Your task to perform on an android device: Go to Amazon Image 0: 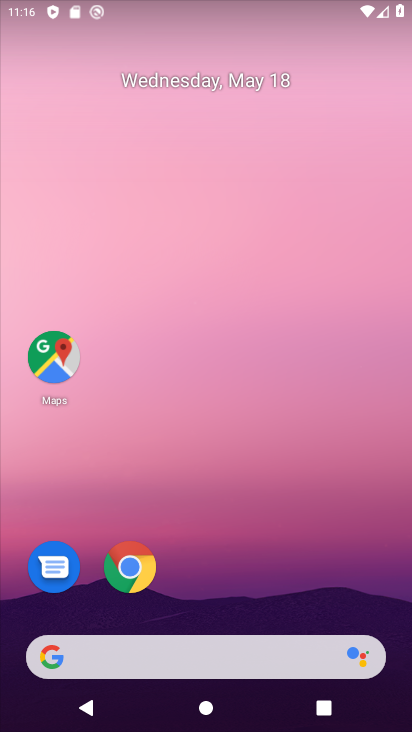
Step 0: click (133, 564)
Your task to perform on an android device: Go to Amazon Image 1: 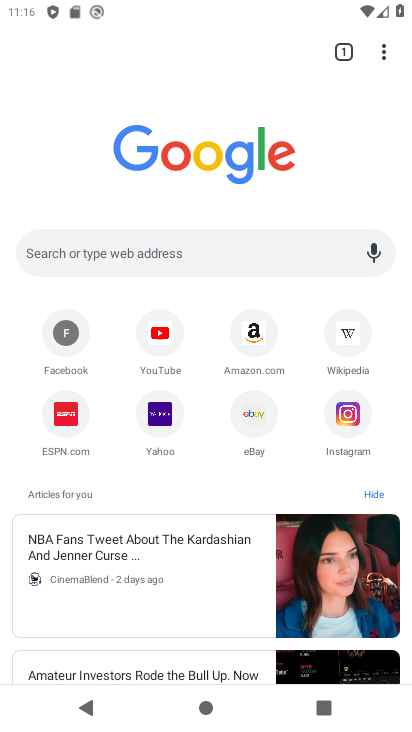
Step 1: click (259, 332)
Your task to perform on an android device: Go to Amazon Image 2: 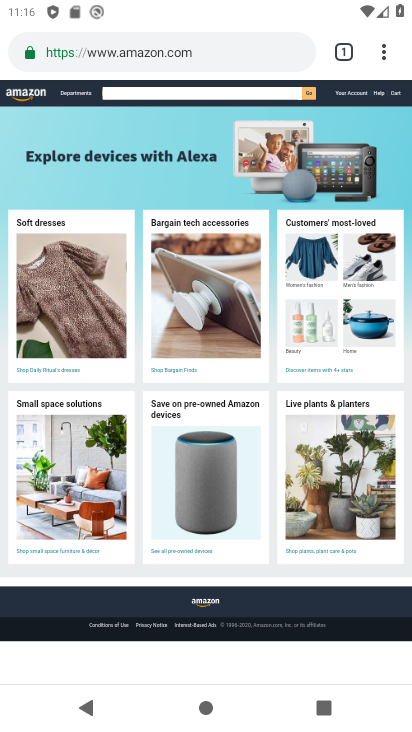
Step 2: task complete